Your task to perform on an android device: turn on showing notifications on the lock screen Image 0: 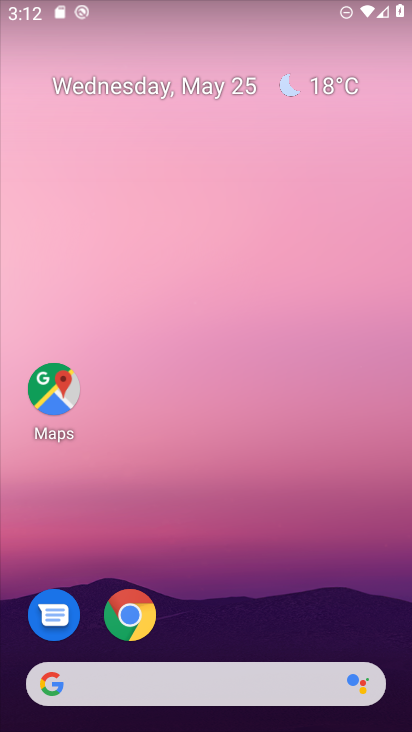
Step 0: drag from (267, 587) to (258, 1)
Your task to perform on an android device: turn on showing notifications on the lock screen Image 1: 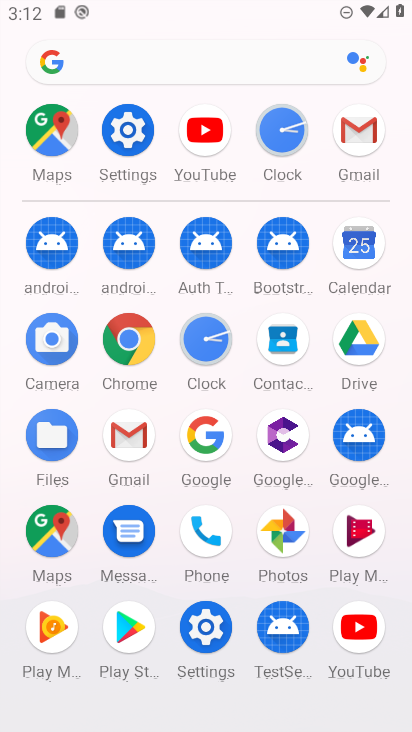
Step 1: click (131, 134)
Your task to perform on an android device: turn on showing notifications on the lock screen Image 2: 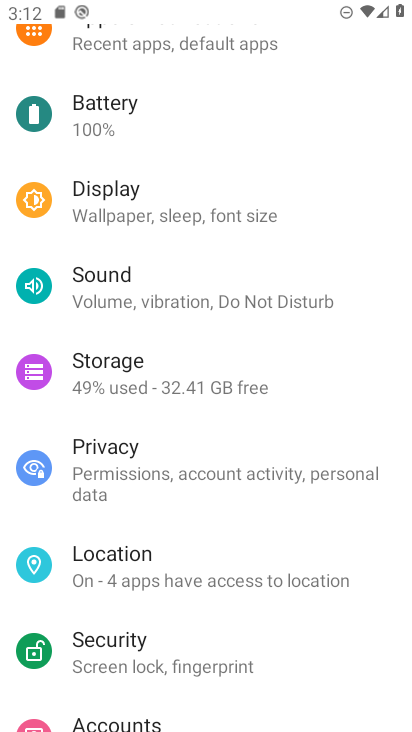
Step 2: drag from (223, 263) to (224, 576)
Your task to perform on an android device: turn on showing notifications on the lock screen Image 3: 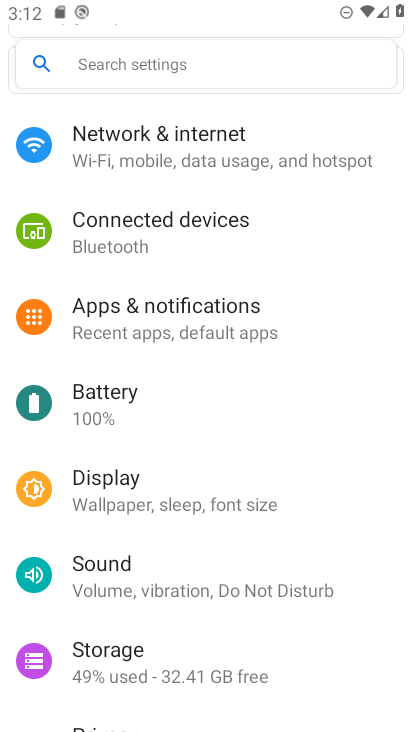
Step 3: click (223, 320)
Your task to perform on an android device: turn on showing notifications on the lock screen Image 4: 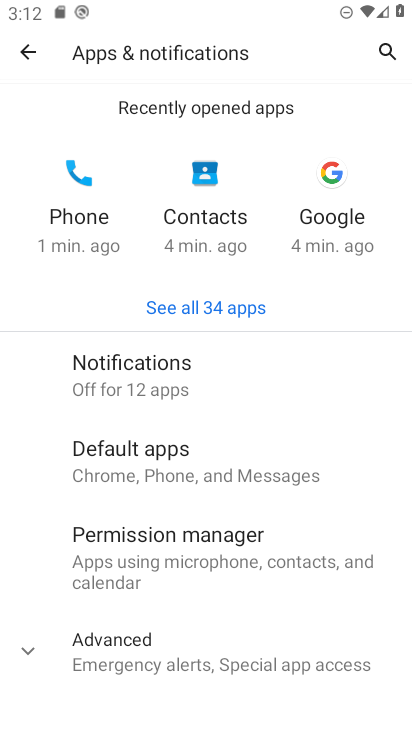
Step 4: click (203, 372)
Your task to perform on an android device: turn on showing notifications on the lock screen Image 5: 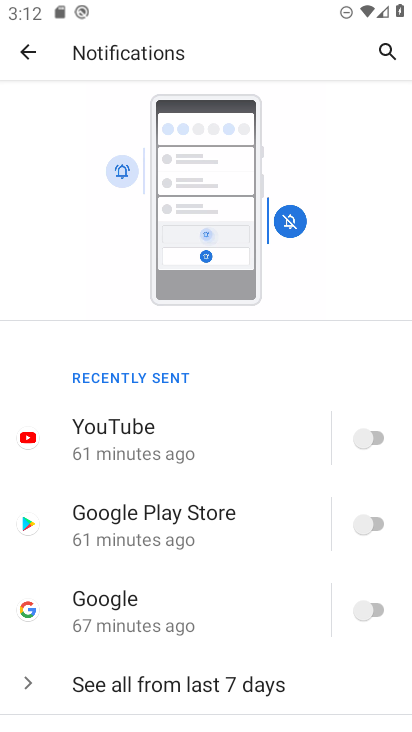
Step 5: task complete